Your task to perform on an android device: turn vacation reply on in the gmail app Image 0: 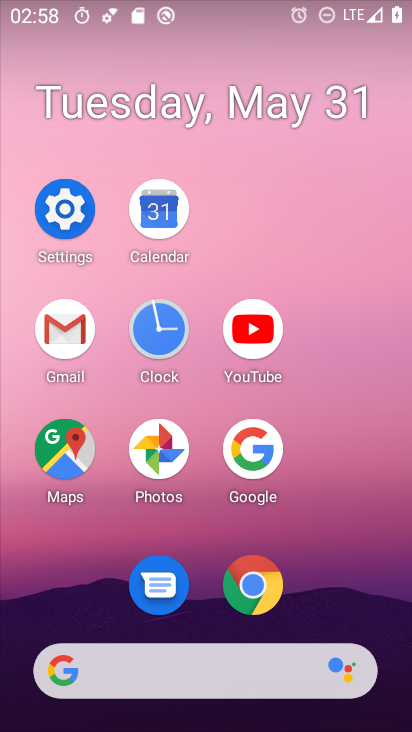
Step 0: click (56, 339)
Your task to perform on an android device: turn vacation reply on in the gmail app Image 1: 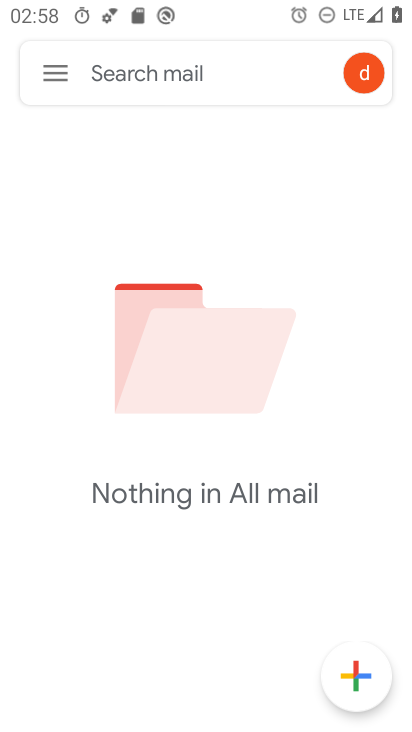
Step 1: click (48, 77)
Your task to perform on an android device: turn vacation reply on in the gmail app Image 2: 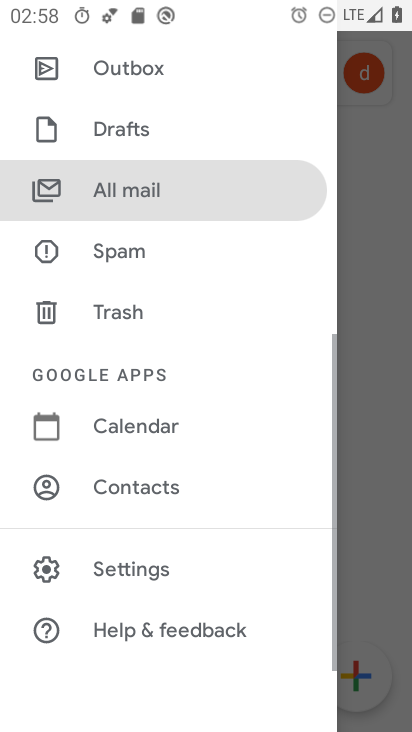
Step 2: drag from (223, 646) to (232, 312)
Your task to perform on an android device: turn vacation reply on in the gmail app Image 3: 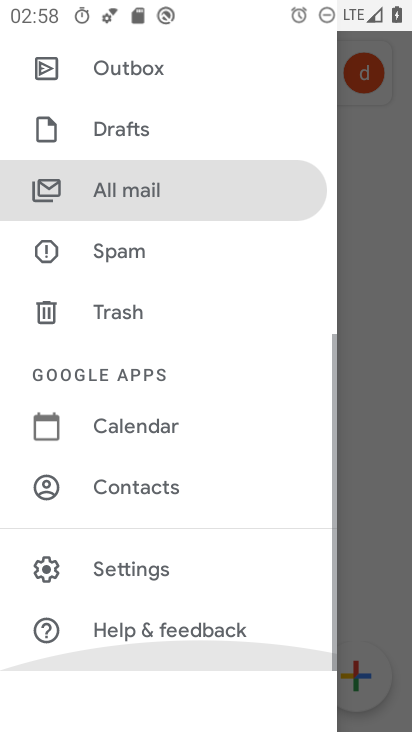
Step 3: click (146, 572)
Your task to perform on an android device: turn vacation reply on in the gmail app Image 4: 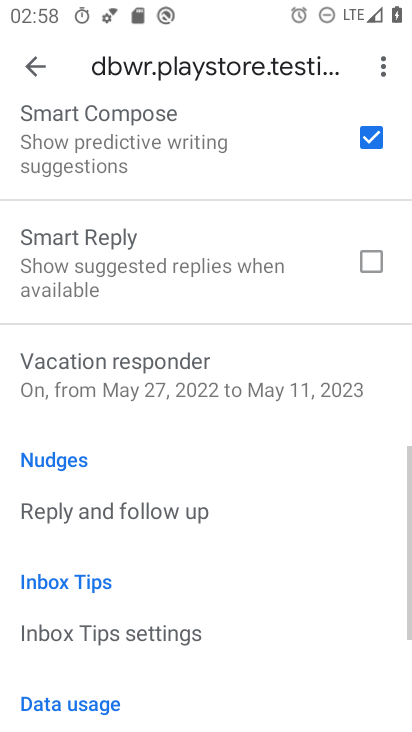
Step 4: click (260, 357)
Your task to perform on an android device: turn vacation reply on in the gmail app Image 5: 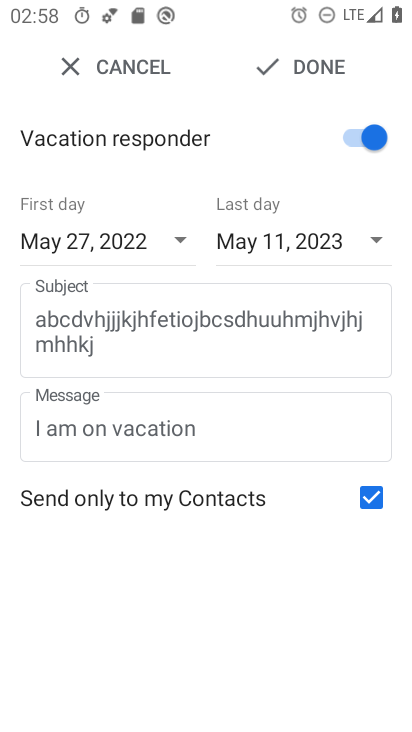
Step 5: click (330, 65)
Your task to perform on an android device: turn vacation reply on in the gmail app Image 6: 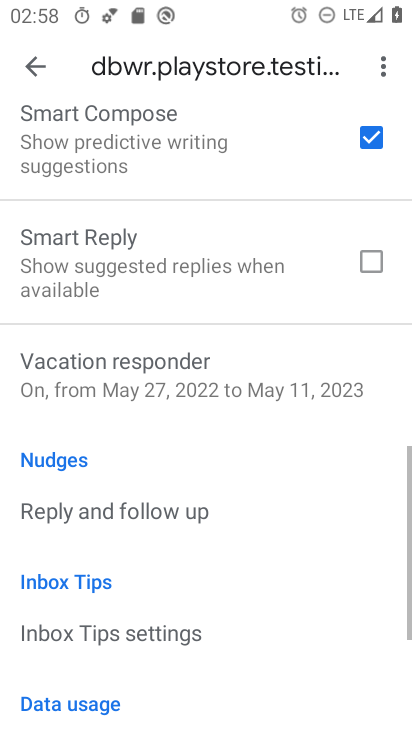
Step 6: task complete